Your task to perform on an android device: turn on javascript in the chrome app Image 0: 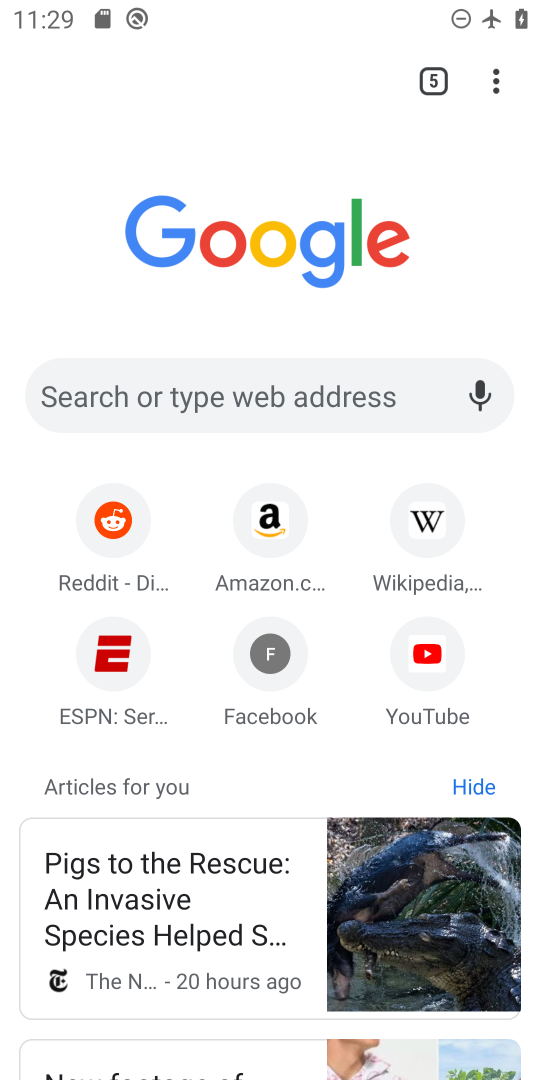
Step 0: click (495, 78)
Your task to perform on an android device: turn on javascript in the chrome app Image 1: 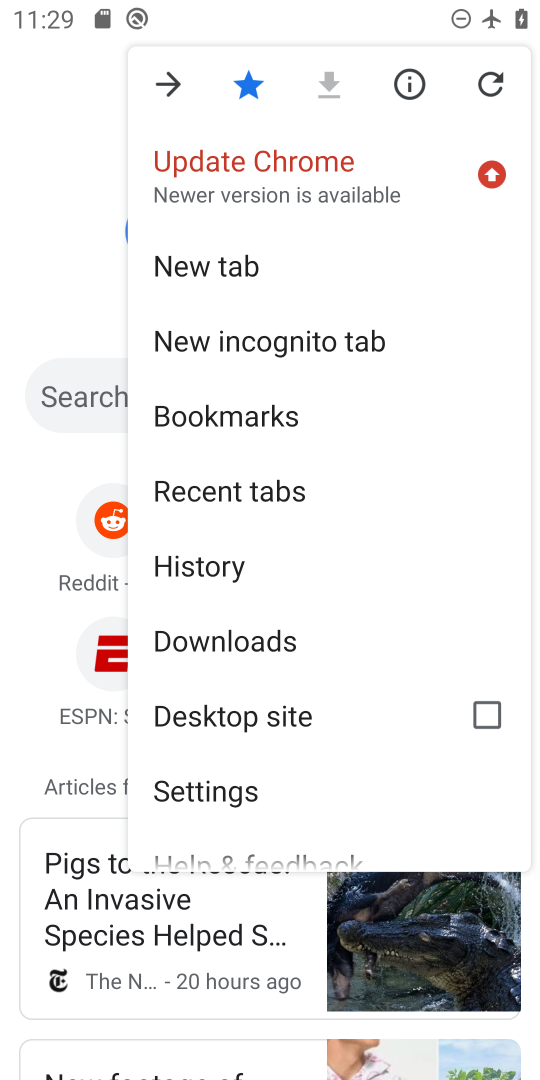
Step 1: click (221, 785)
Your task to perform on an android device: turn on javascript in the chrome app Image 2: 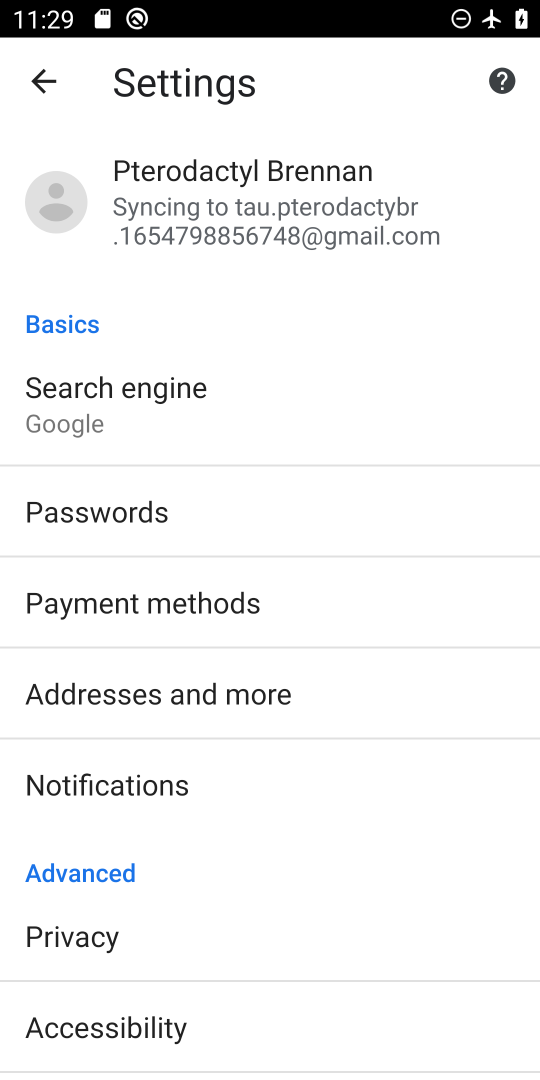
Step 2: drag from (314, 847) to (343, 165)
Your task to perform on an android device: turn on javascript in the chrome app Image 3: 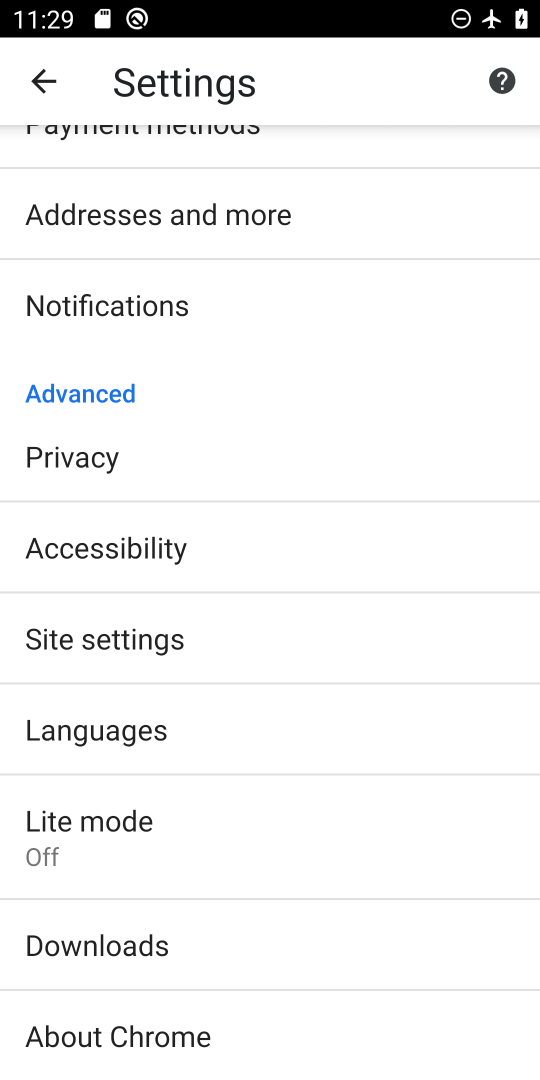
Step 3: click (216, 636)
Your task to perform on an android device: turn on javascript in the chrome app Image 4: 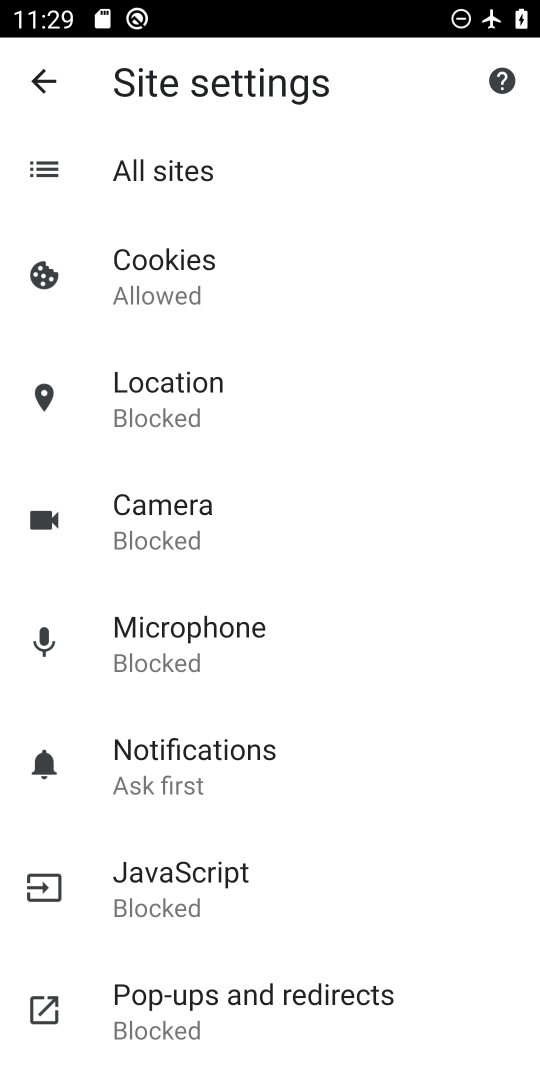
Step 4: click (227, 872)
Your task to perform on an android device: turn on javascript in the chrome app Image 5: 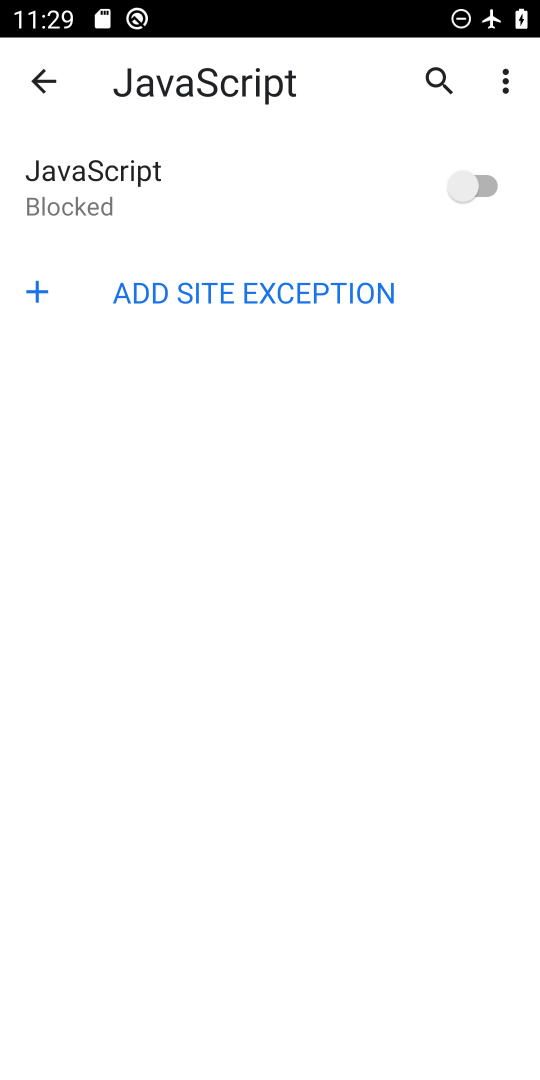
Step 5: click (476, 176)
Your task to perform on an android device: turn on javascript in the chrome app Image 6: 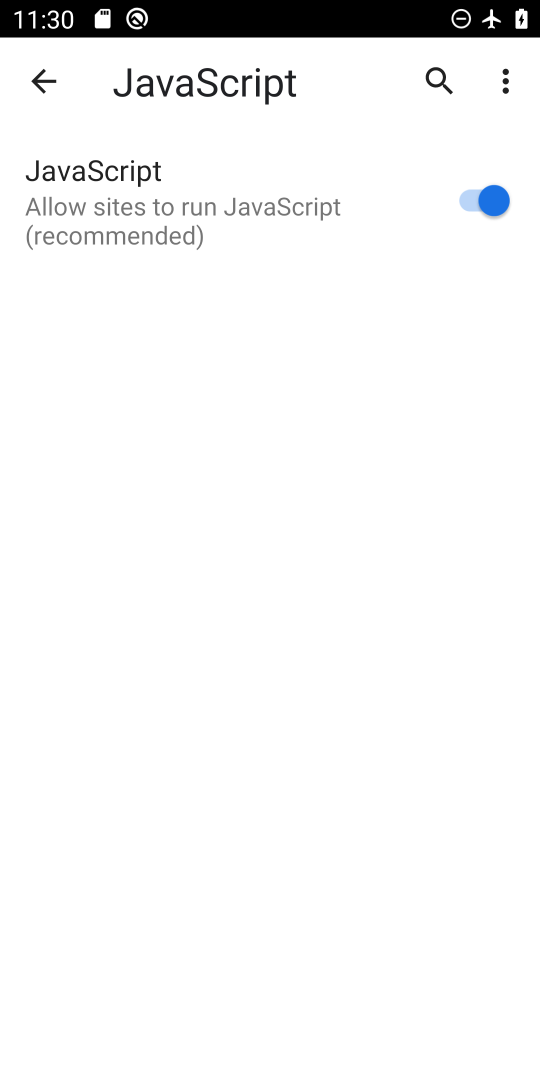
Step 6: task complete